Your task to perform on an android device: When is my next appointment? Image 0: 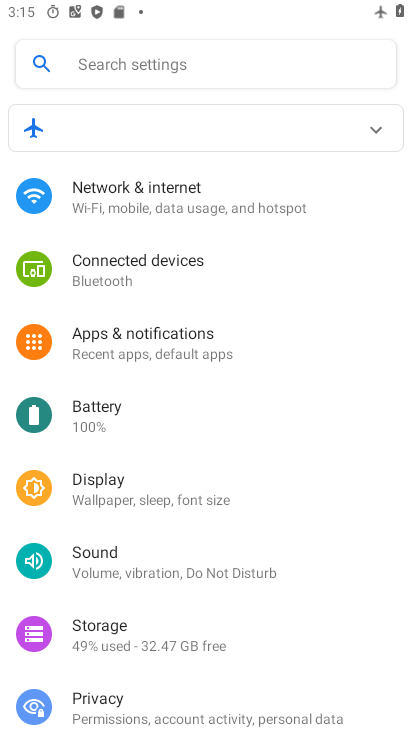
Step 0: press home button
Your task to perform on an android device: When is my next appointment? Image 1: 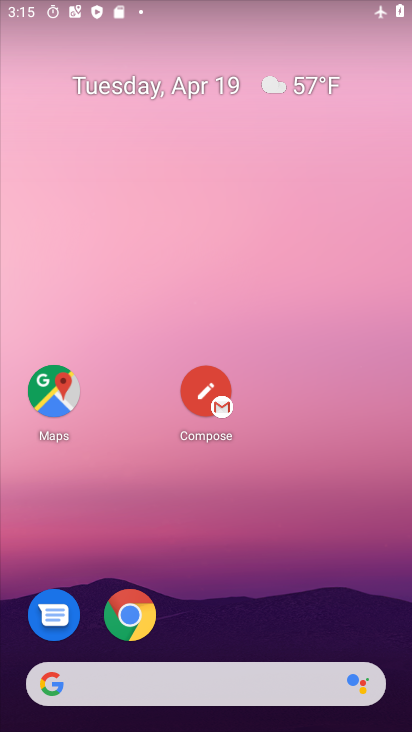
Step 1: drag from (300, 544) to (334, 145)
Your task to perform on an android device: When is my next appointment? Image 2: 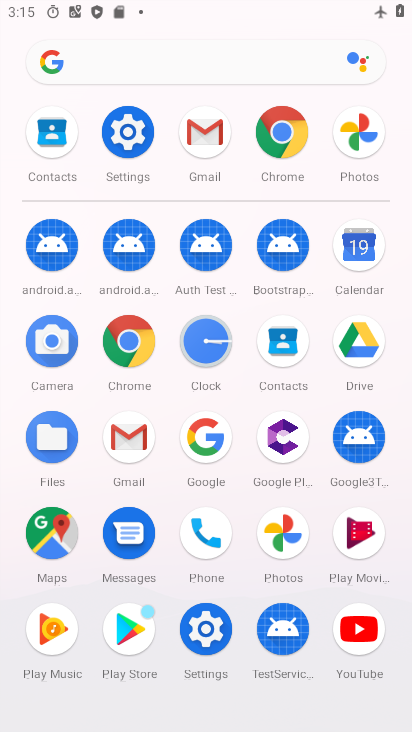
Step 2: click (367, 252)
Your task to perform on an android device: When is my next appointment? Image 3: 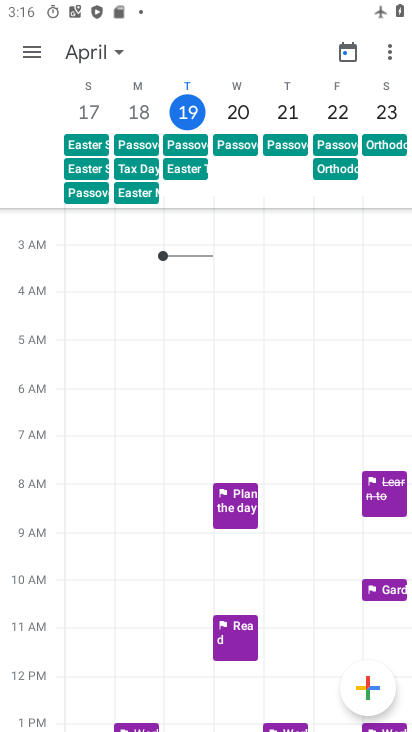
Step 3: click (117, 51)
Your task to perform on an android device: When is my next appointment? Image 4: 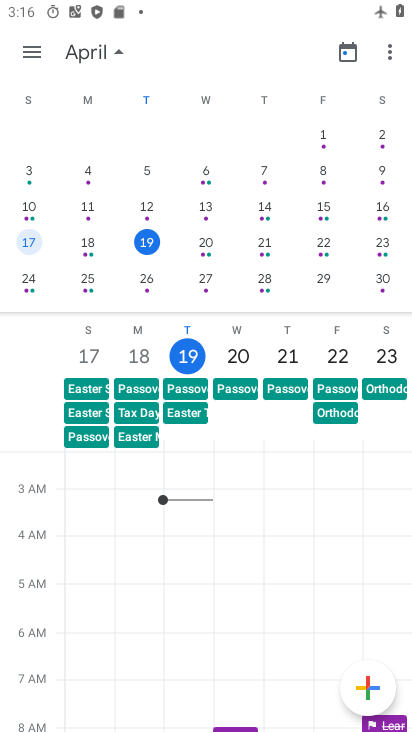
Step 4: click (327, 246)
Your task to perform on an android device: When is my next appointment? Image 5: 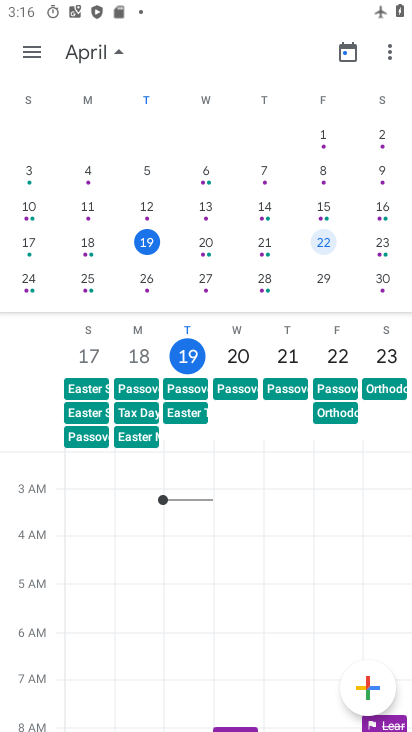
Step 5: task complete